Your task to perform on an android device: add a contact in the contacts app Image 0: 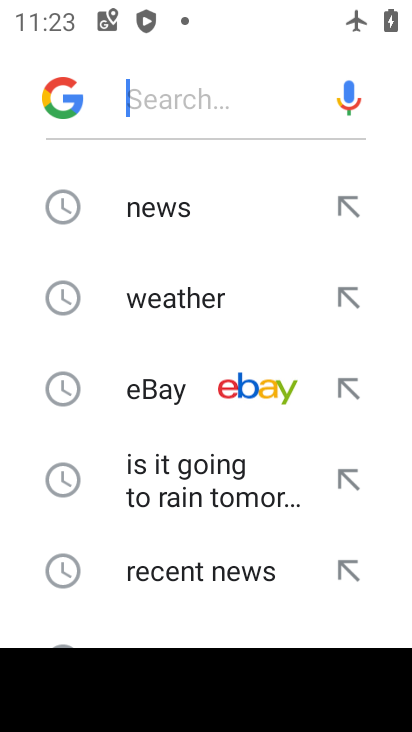
Step 0: press home button
Your task to perform on an android device: add a contact in the contacts app Image 1: 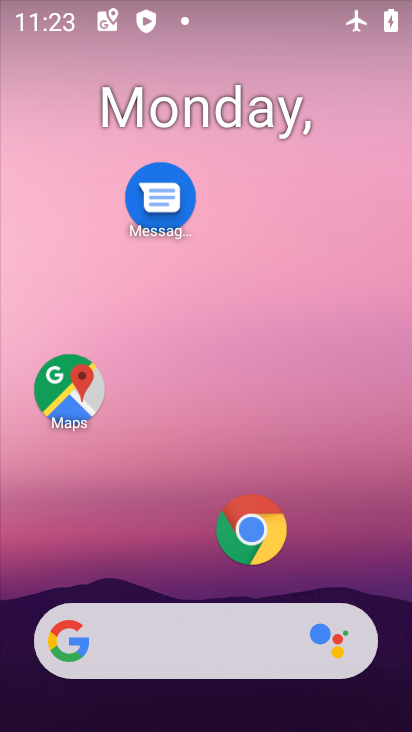
Step 1: drag from (200, 380) to (281, 100)
Your task to perform on an android device: add a contact in the contacts app Image 2: 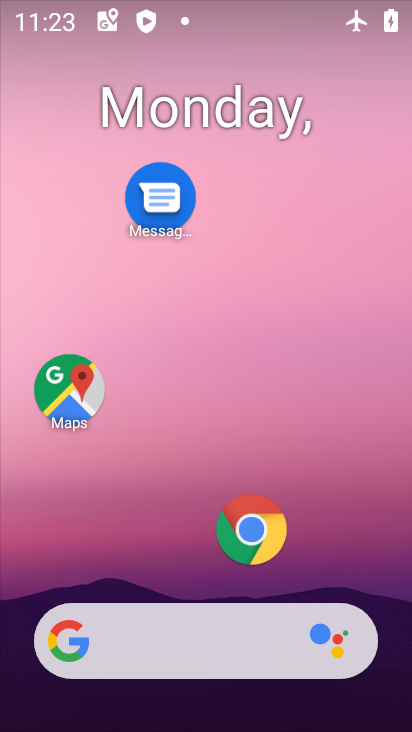
Step 2: drag from (166, 561) to (290, 153)
Your task to perform on an android device: add a contact in the contacts app Image 3: 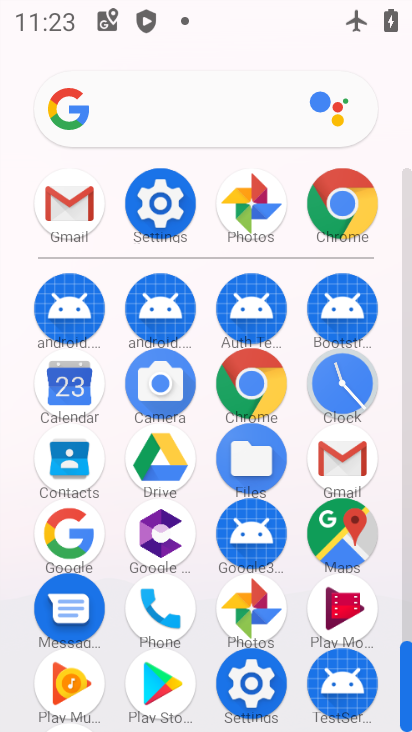
Step 3: click (97, 471)
Your task to perform on an android device: add a contact in the contacts app Image 4: 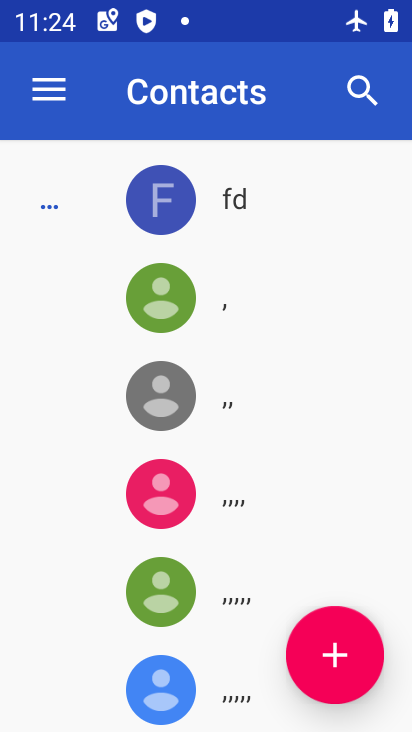
Step 4: click (354, 657)
Your task to perform on an android device: add a contact in the contacts app Image 5: 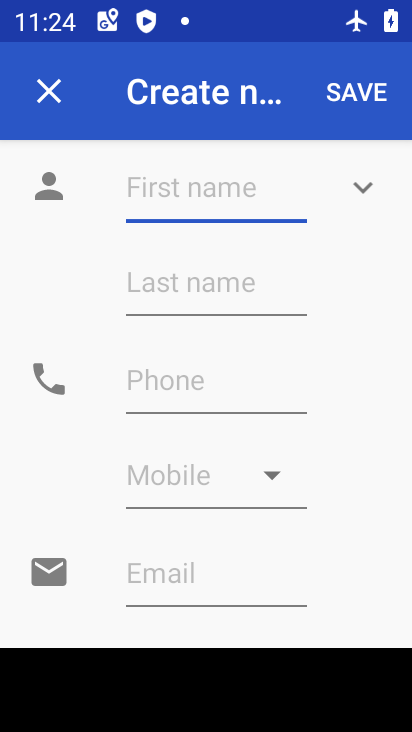
Step 5: type "ttgfdghdfgr"
Your task to perform on an android device: add a contact in the contacts app Image 6: 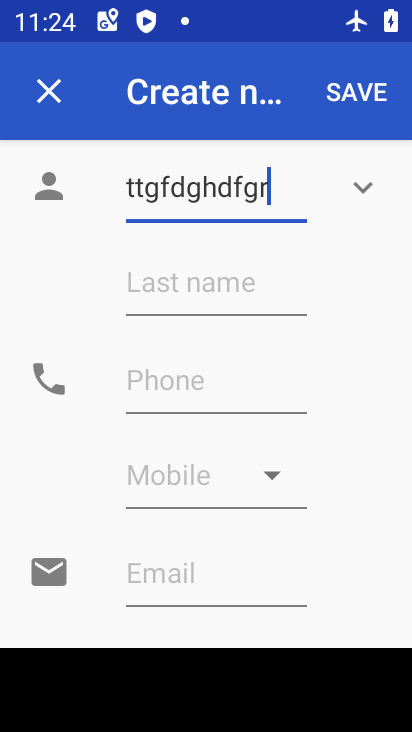
Step 6: type ""
Your task to perform on an android device: add a contact in the contacts app Image 7: 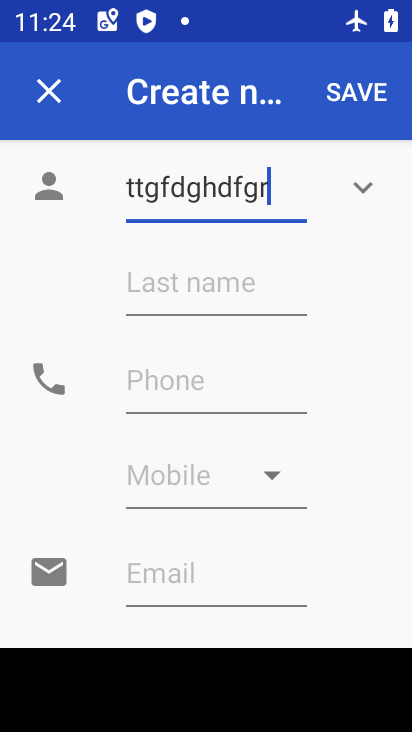
Step 7: click (335, 85)
Your task to perform on an android device: add a contact in the contacts app Image 8: 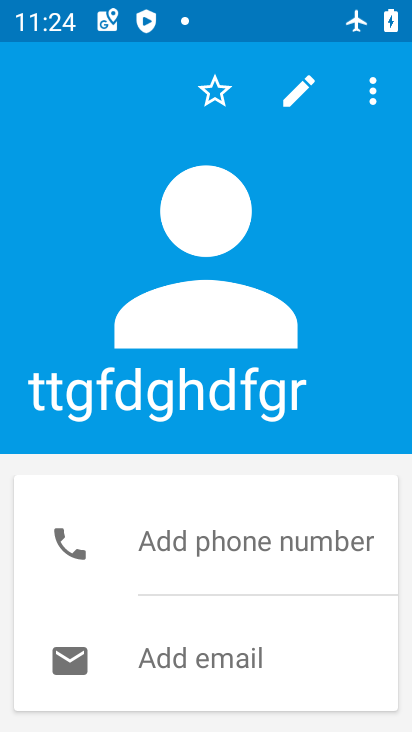
Step 8: task complete